Your task to perform on an android device: all mails in gmail Image 0: 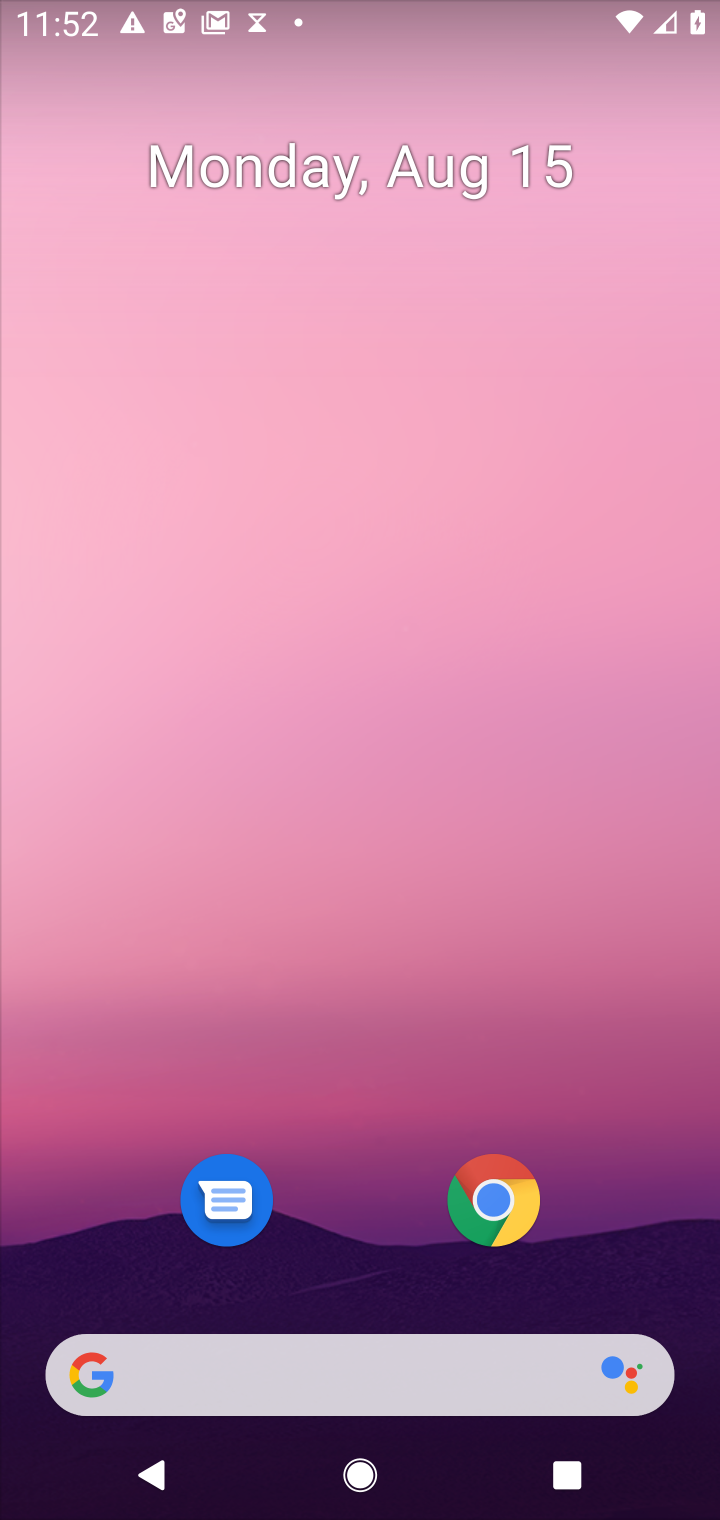
Step 0: drag from (385, 1280) to (342, 566)
Your task to perform on an android device: all mails in gmail Image 1: 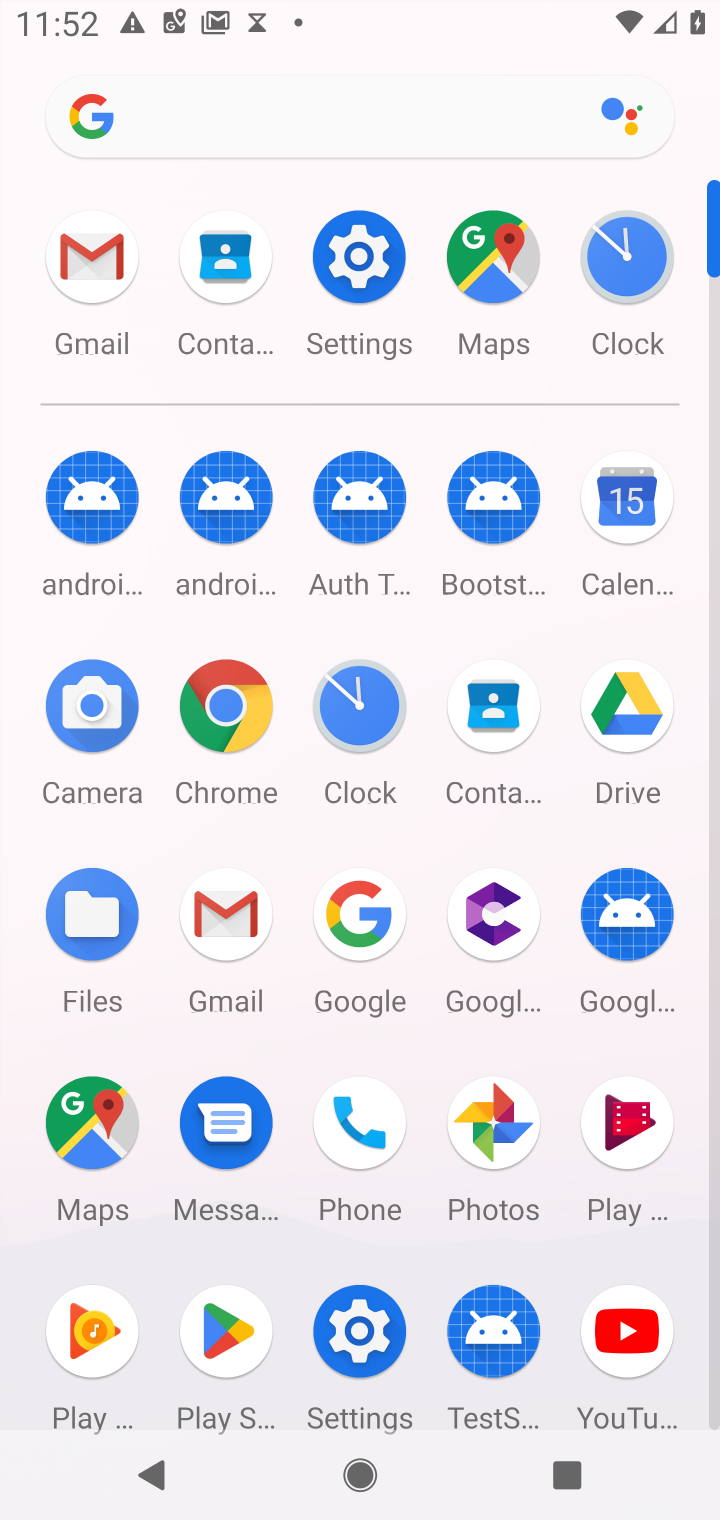
Step 1: click (127, 288)
Your task to perform on an android device: all mails in gmail Image 2: 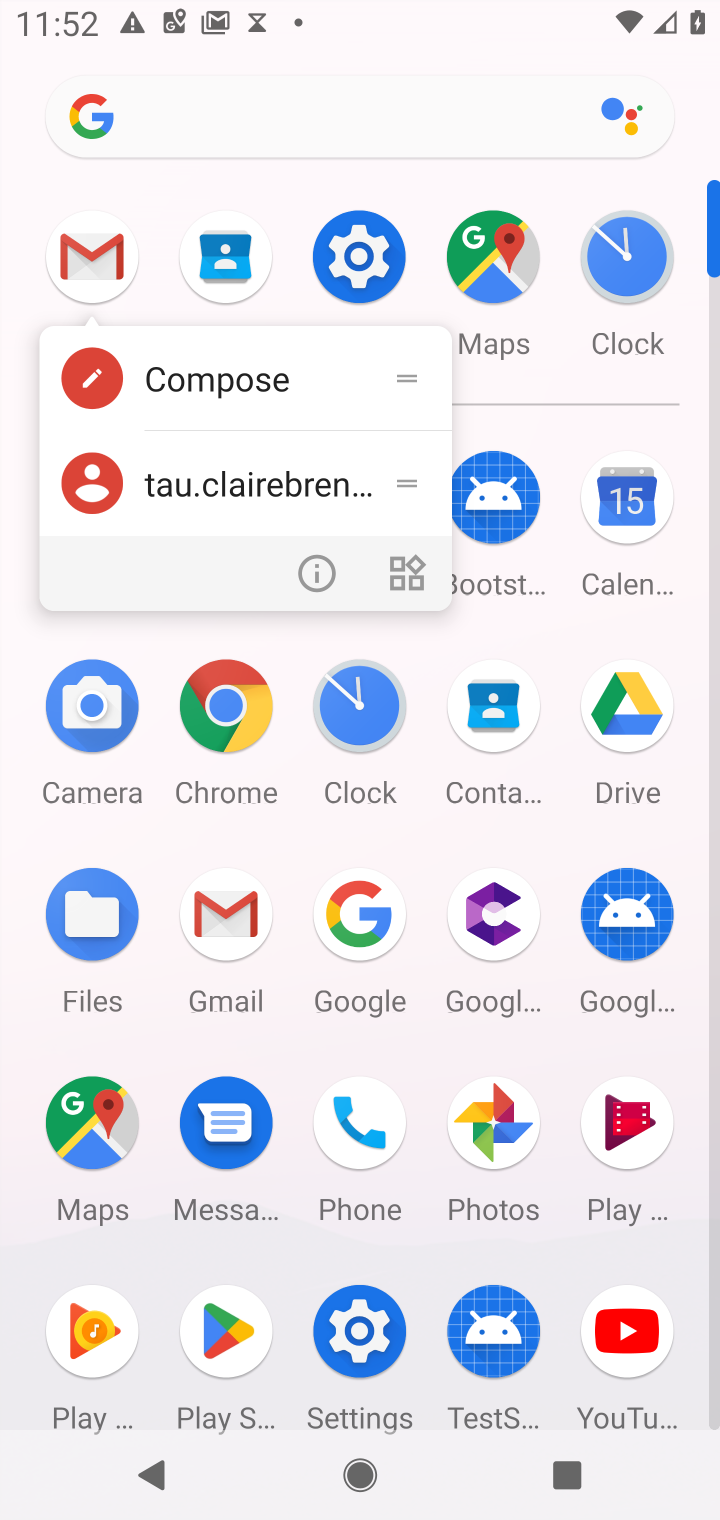
Step 2: click (123, 273)
Your task to perform on an android device: all mails in gmail Image 3: 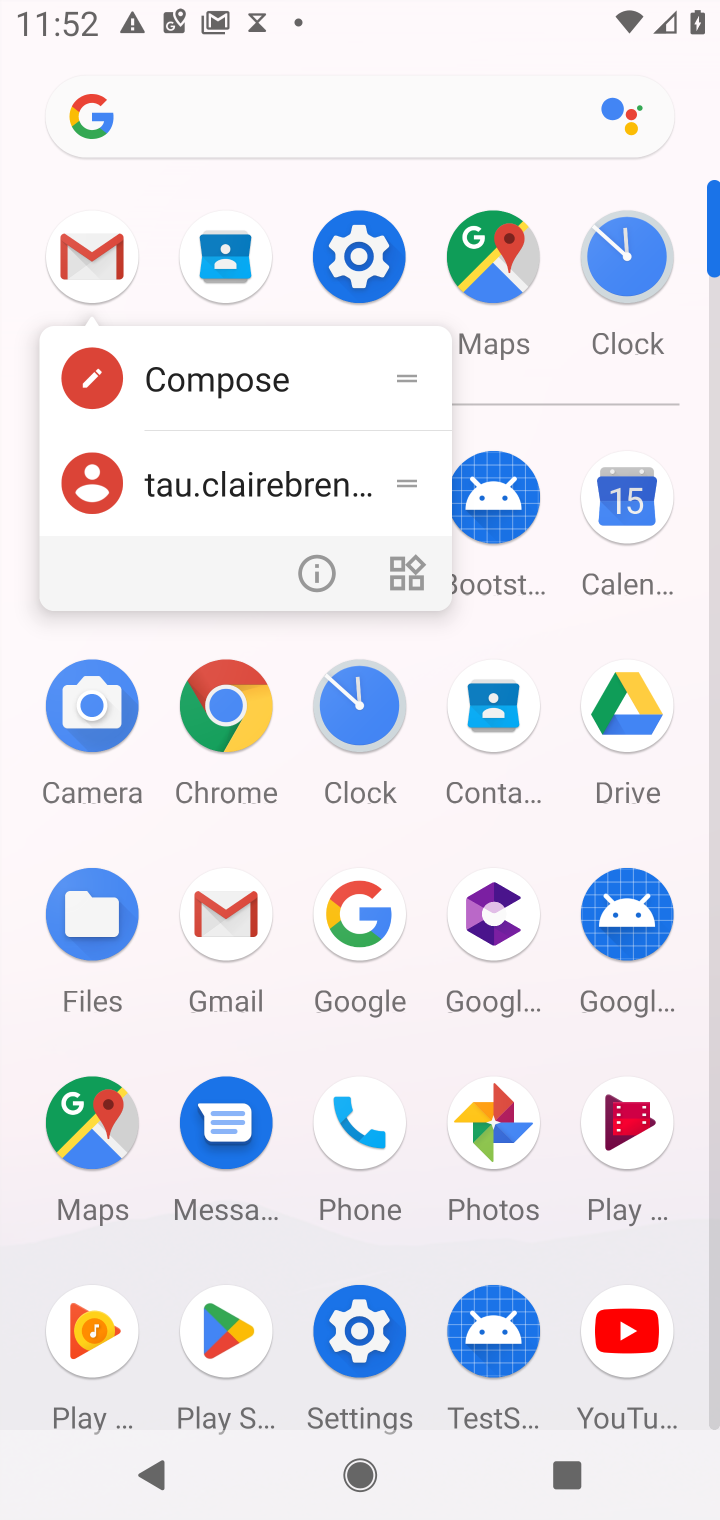
Step 3: click (85, 283)
Your task to perform on an android device: all mails in gmail Image 4: 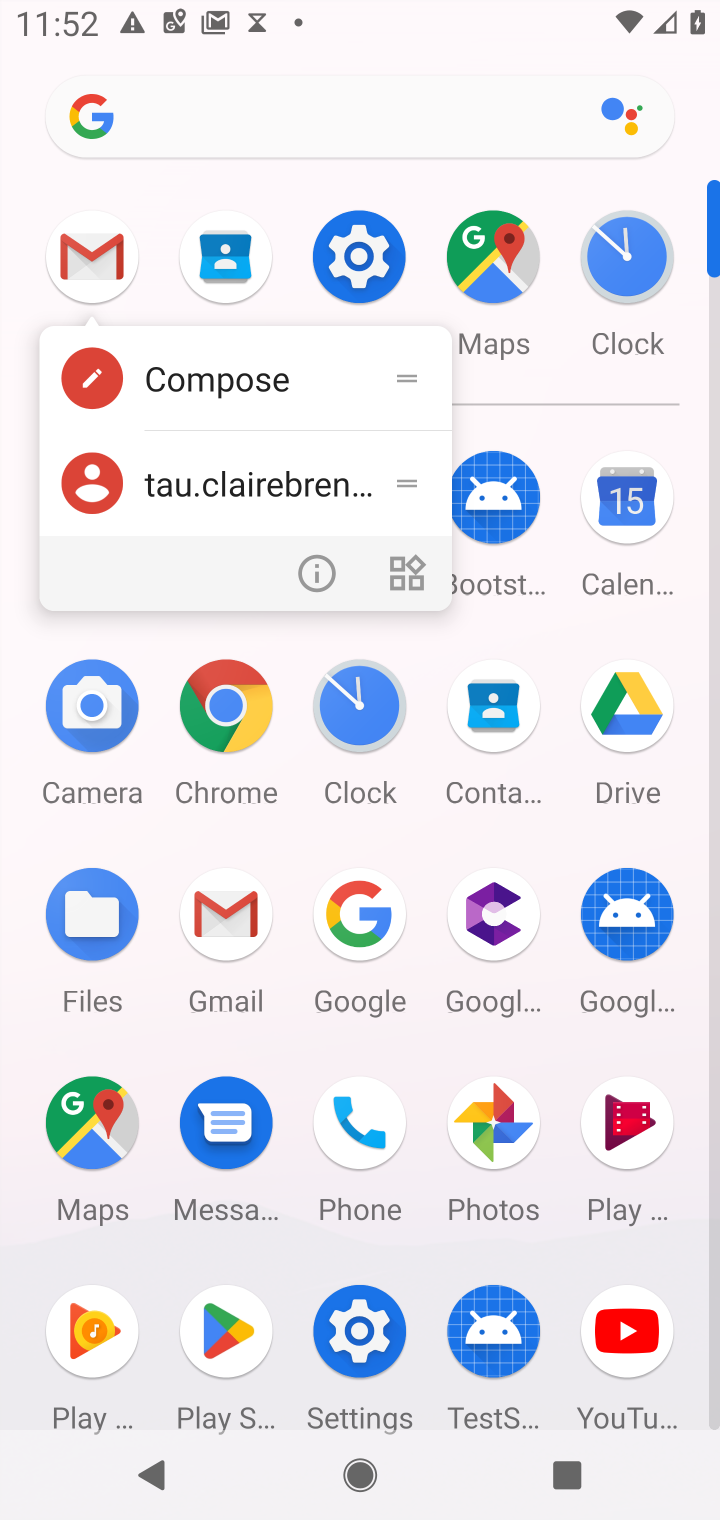
Step 4: click (119, 261)
Your task to perform on an android device: all mails in gmail Image 5: 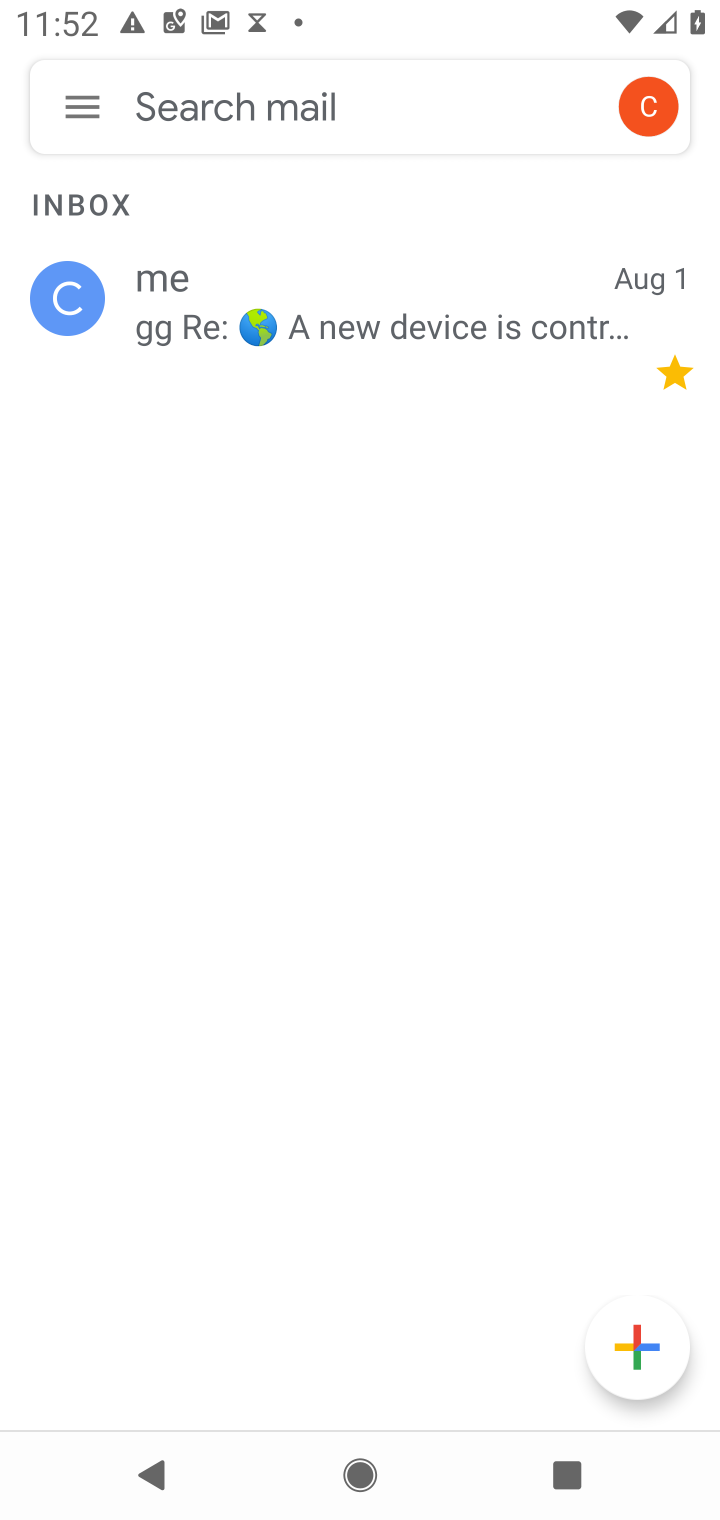
Step 5: click (97, 114)
Your task to perform on an android device: all mails in gmail Image 6: 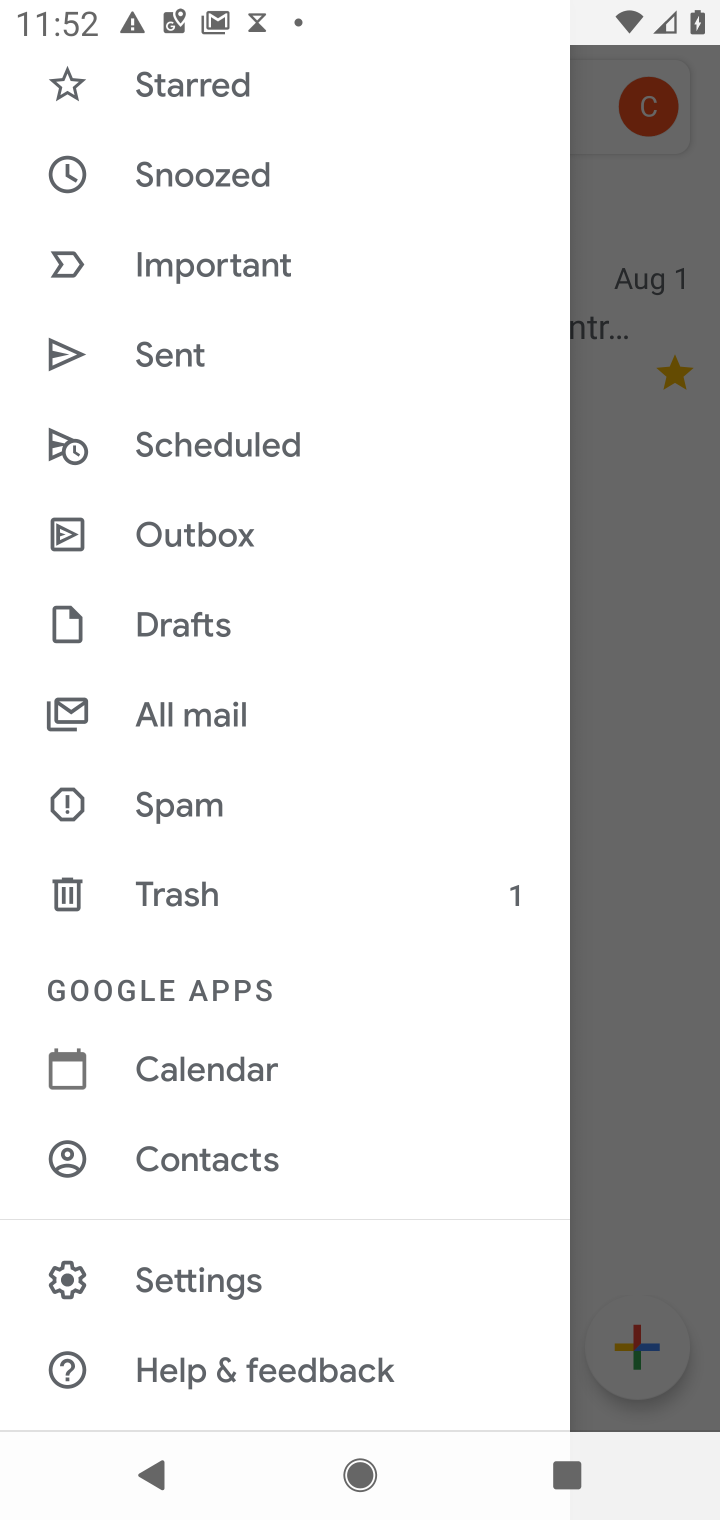
Step 6: click (235, 689)
Your task to perform on an android device: all mails in gmail Image 7: 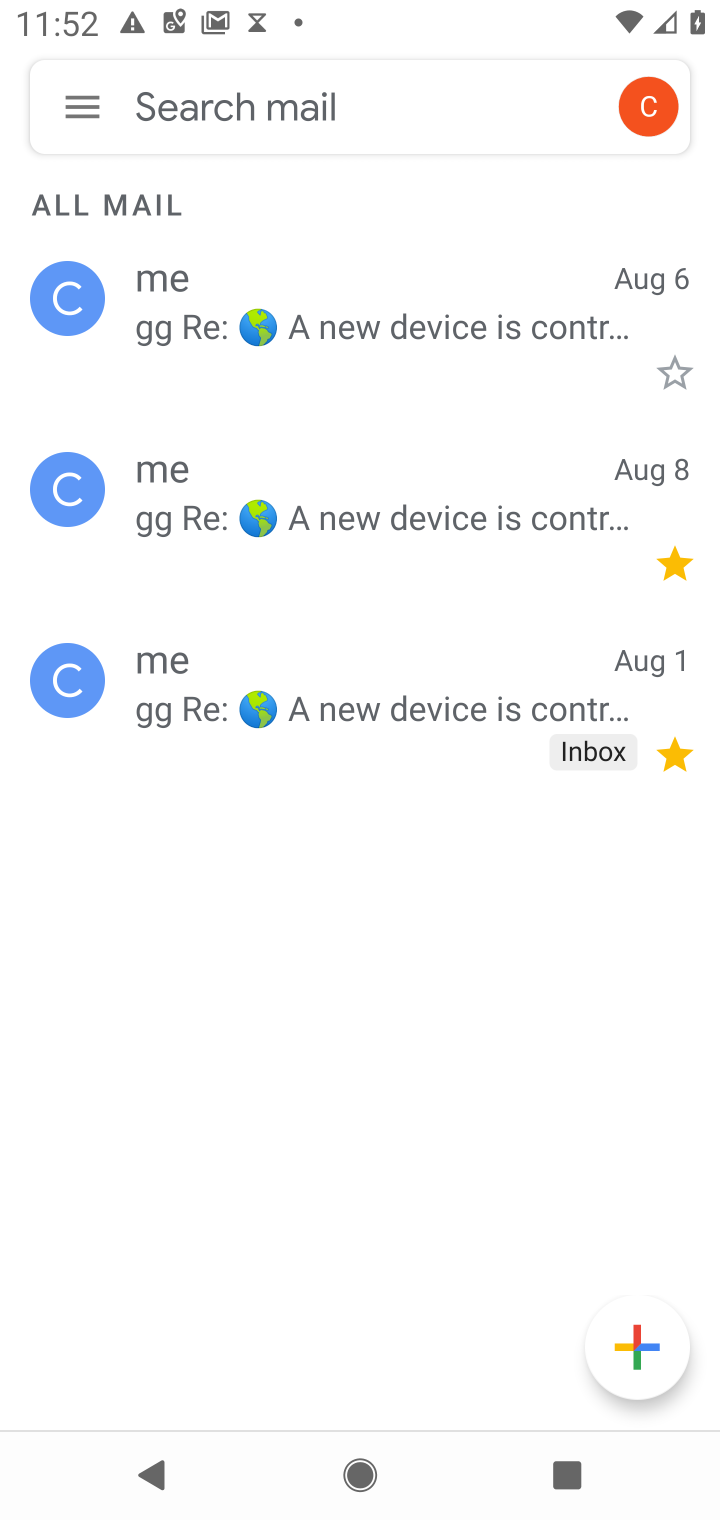
Step 7: task complete